Your task to perform on an android device: turn off improve location accuracy Image 0: 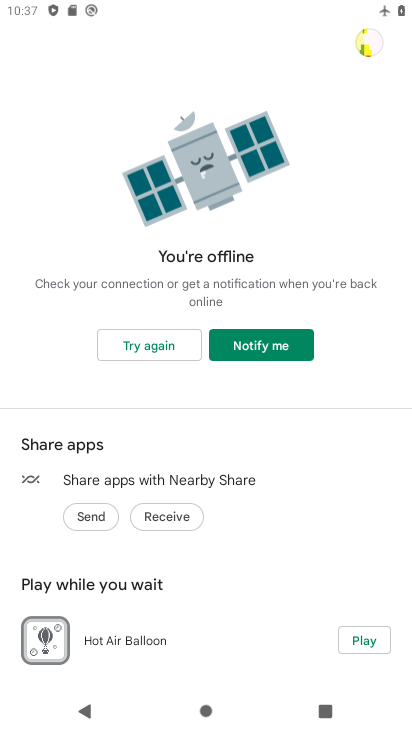
Step 0: press home button
Your task to perform on an android device: turn off improve location accuracy Image 1: 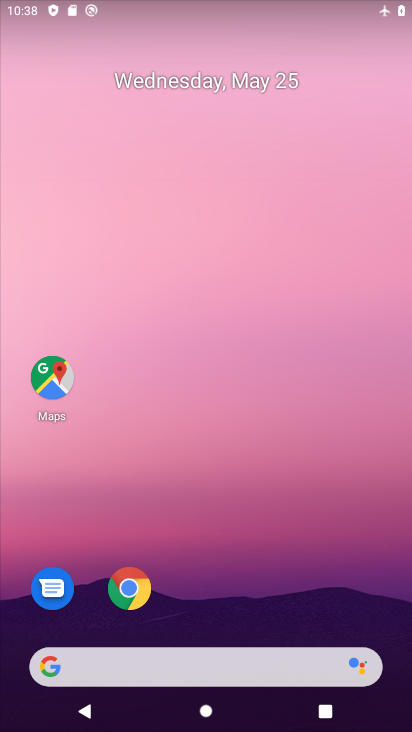
Step 1: drag from (253, 570) to (234, 174)
Your task to perform on an android device: turn off improve location accuracy Image 2: 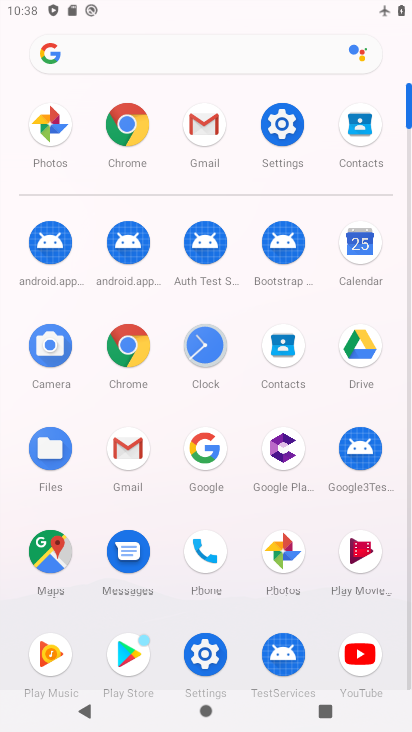
Step 2: click (284, 133)
Your task to perform on an android device: turn off improve location accuracy Image 3: 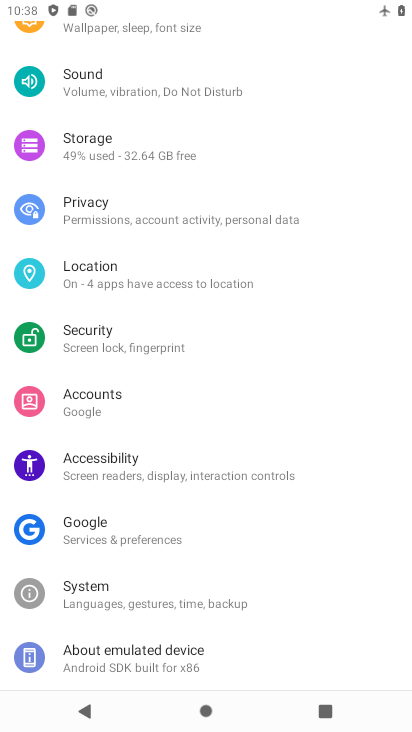
Step 3: click (133, 283)
Your task to perform on an android device: turn off improve location accuracy Image 4: 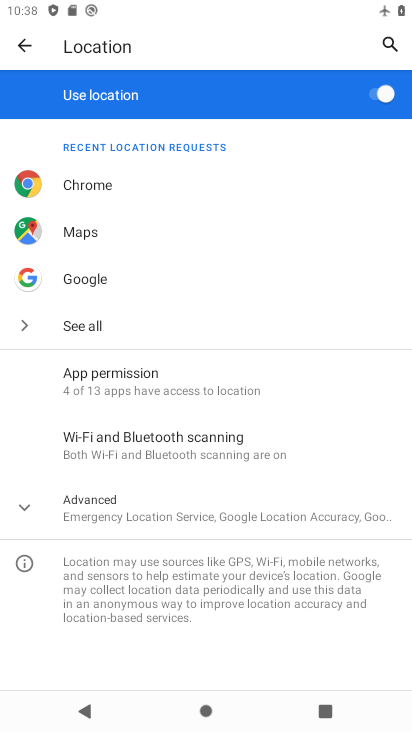
Step 4: click (106, 516)
Your task to perform on an android device: turn off improve location accuracy Image 5: 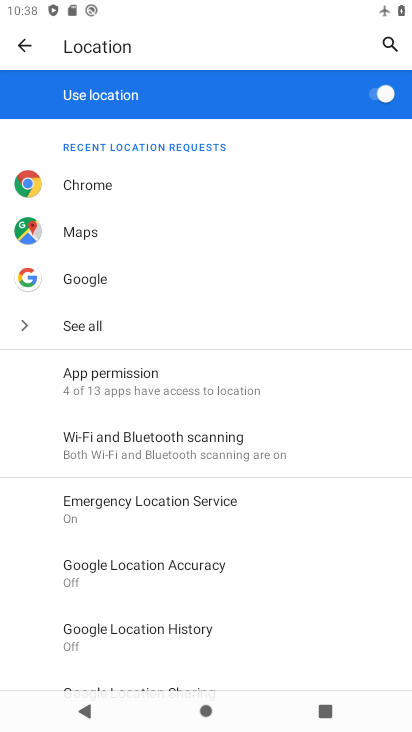
Step 5: click (184, 568)
Your task to perform on an android device: turn off improve location accuracy Image 6: 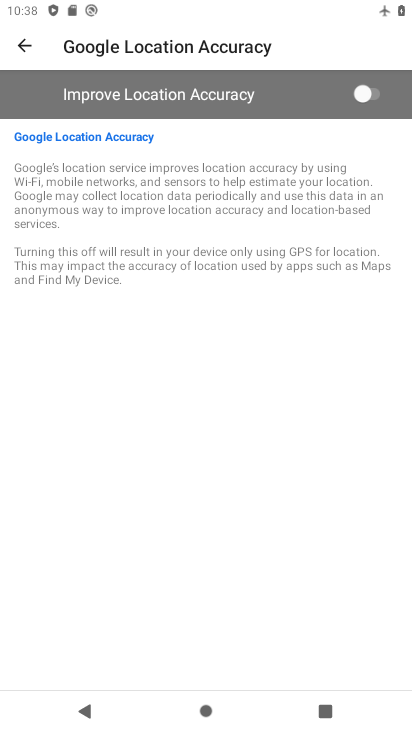
Step 6: task complete